Your task to perform on an android device: Toggle the flashlight Image 0: 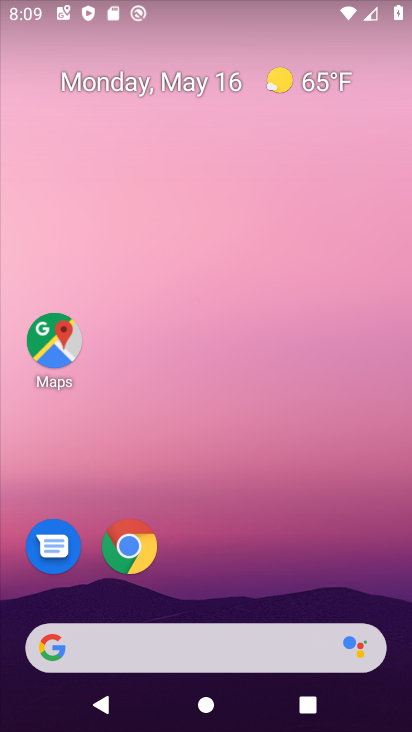
Step 0: drag from (318, 555) to (211, 77)
Your task to perform on an android device: Toggle the flashlight Image 1: 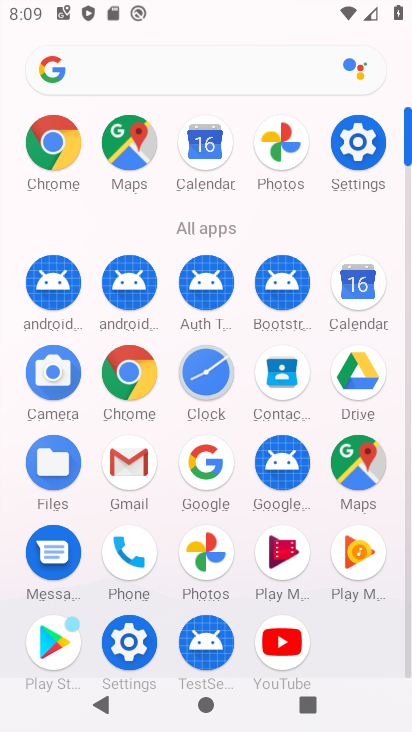
Step 1: click (362, 131)
Your task to perform on an android device: Toggle the flashlight Image 2: 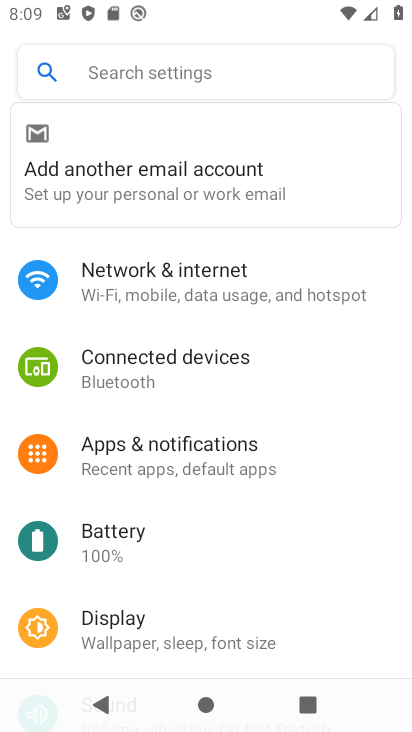
Step 2: click (207, 444)
Your task to perform on an android device: Toggle the flashlight Image 3: 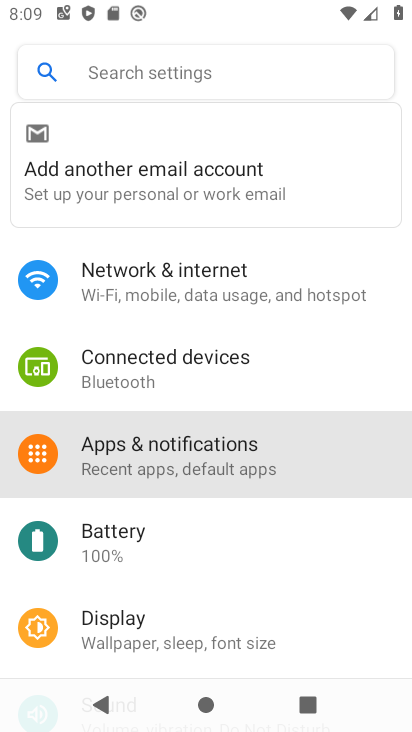
Step 3: task complete